Your task to perform on an android device: Open internet settings Image 0: 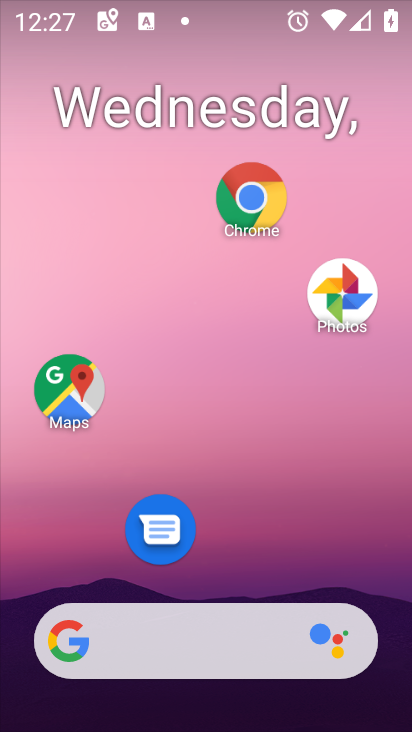
Step 0: drag from (232, 603) to (315, 159)
Your task to perform on an android device: Open internet settings Image 1: 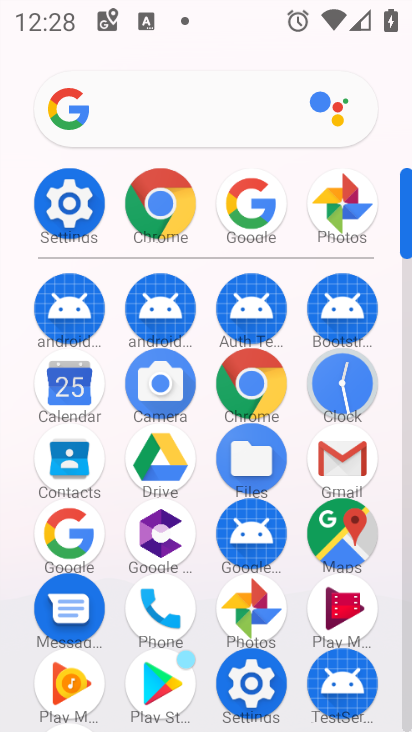
Step 1: click (65, 218)
Your task to perform on an android device: Open internet settings Image 2: 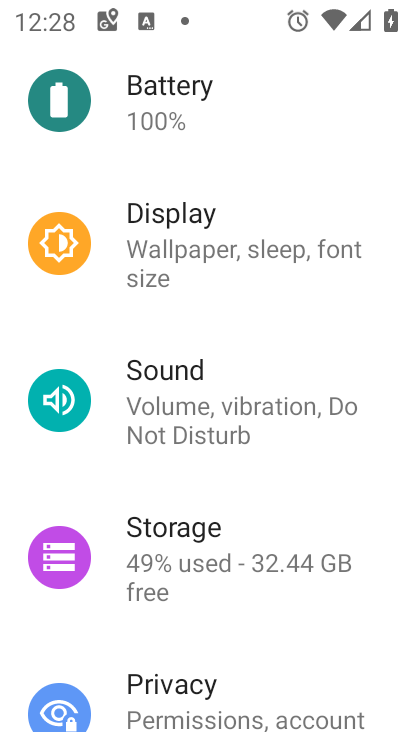
Step 2: drag from (157, 295) to (111, 703)
Your task to perform on an android device: Open internet settings Image 3: 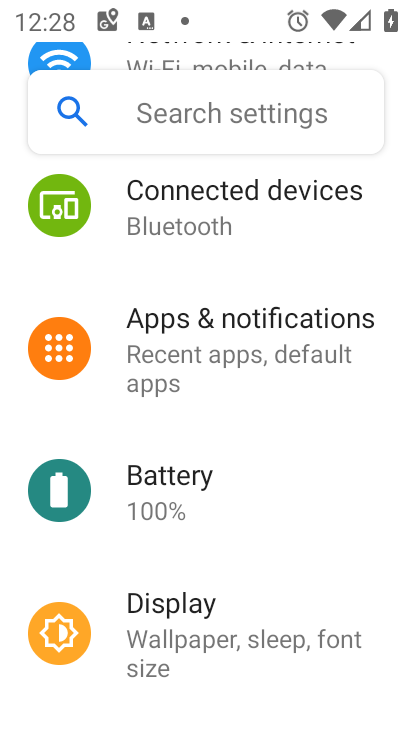
Step 3: drag from (280, 298) to (147, 731)
Your task to perform on an android device: Open internet settings Image 4: 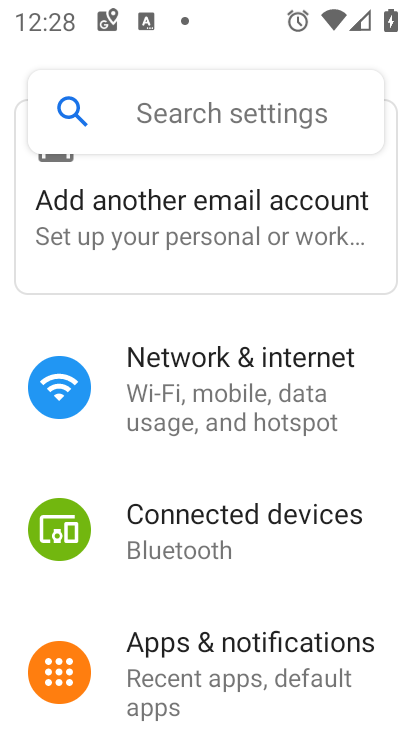
Step 4: click (263, 375)
Your task to perform on an android device: Open internet settings Image 5: 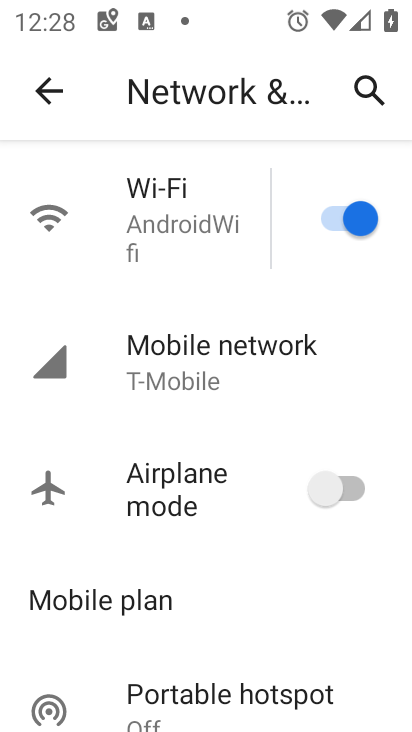
Step 5: click (190, 370)
Your task to perform on an android device: Open internet settings Image 6: 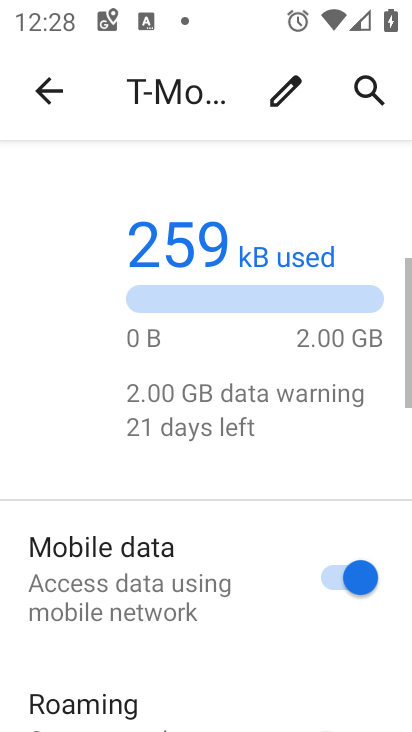
Step 6: task complete